Your task to perform on an android device: open device folders in google photos Image 0: 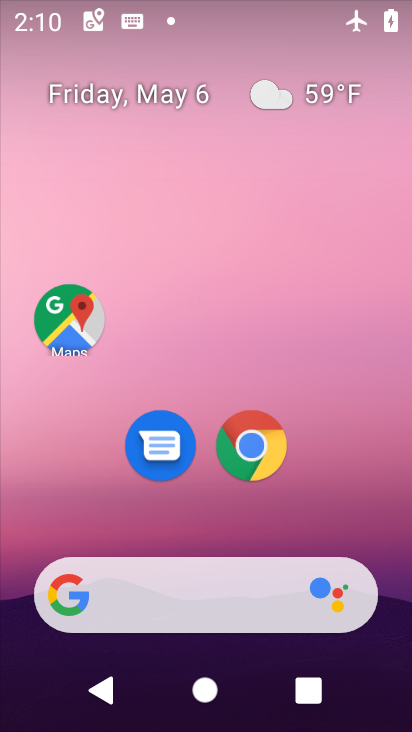
Step 0: drag from (396, 513) to (183, 45)
Your task to perform on an android device: open device folders in google photos Image 1: 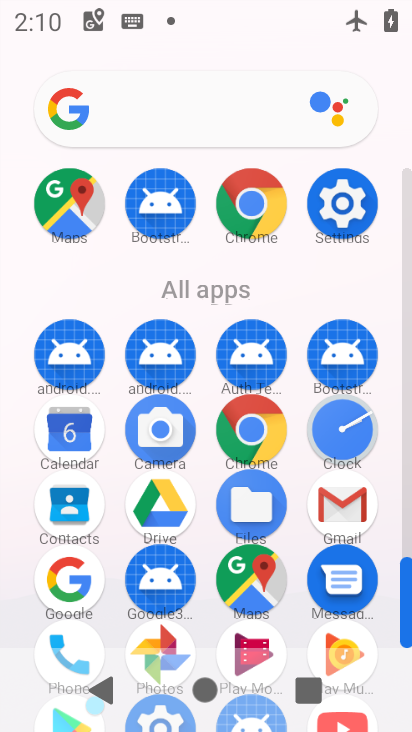
Step 1: click (164, 648)
Your task to perform on an android device: open device folders in google photos Image 2: 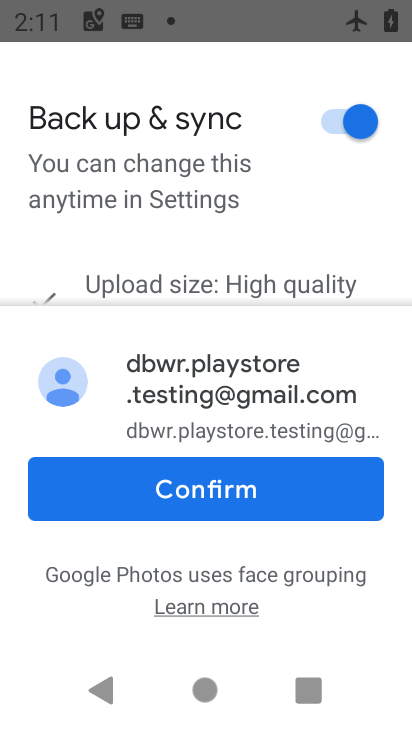
Step 2: click (239, 485)
Your task to perform on an android device: open device folders in google photos Image 3: 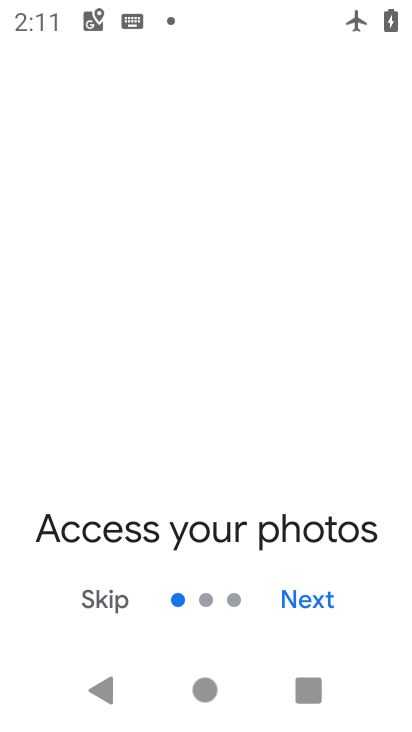
Step 3: press home button
Your task to perform on an android device: open device folders in google photos Image 4: 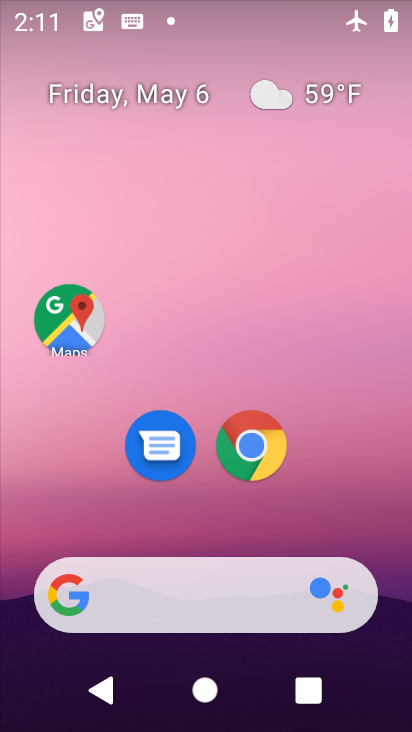
Step 4: drag from (385, 516) to (164, 94)
Your task to perform on an android device: open device folders in google photos Image 5: 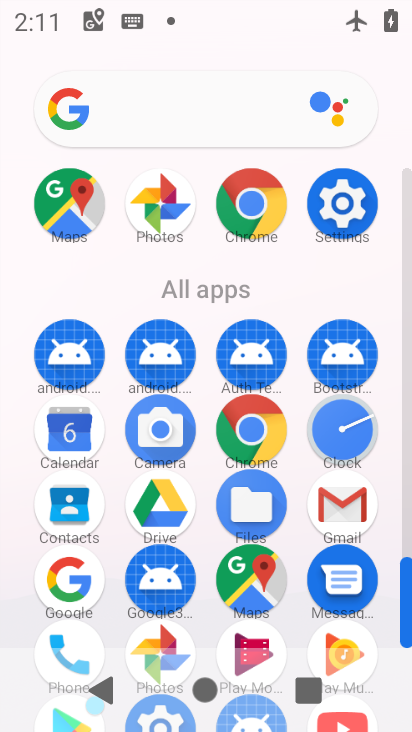
Step 5: click (154, 205)
Your task to perform on an android device: open device folders in google photos Image 6: 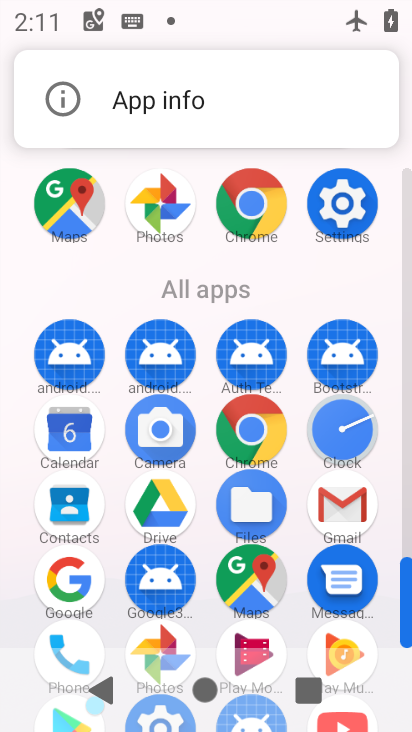
Step 6: click (166, 201)
Your task to perform on an android device: open device folders in google photos Image 7: 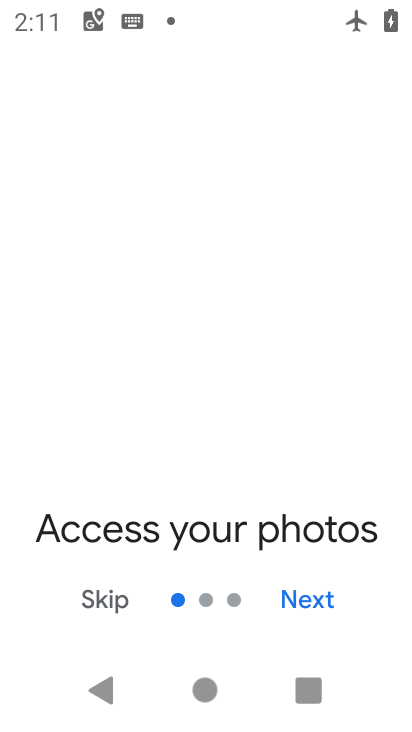
Step 7: click (300, 592)
Your task to perform on an android device: open device folders in google photos Image 8: 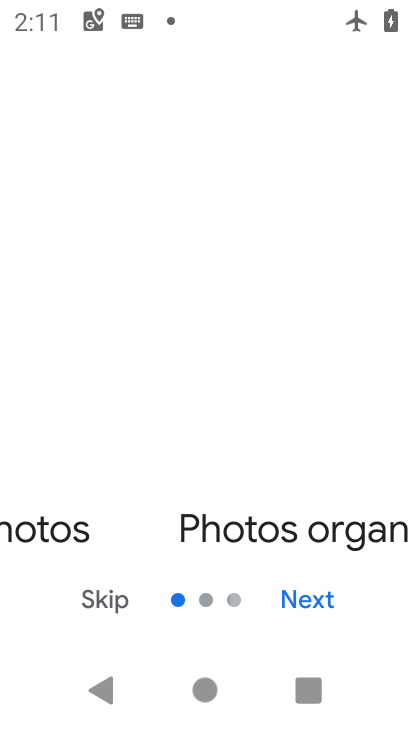
Step 8: click (300, 592)
Your task to perform on an android device: open device folders in google photos Image 9: 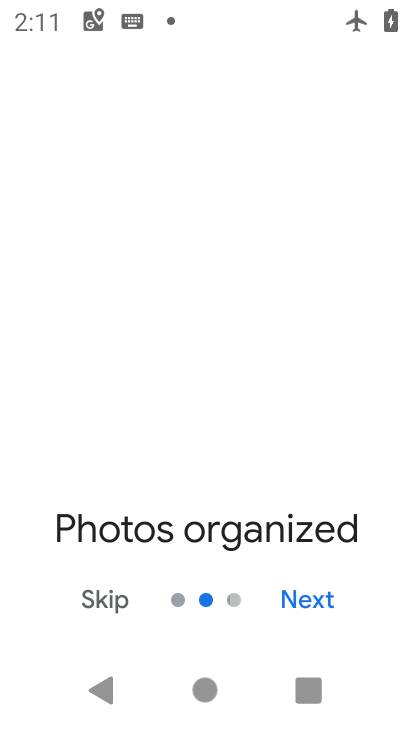
Step 9: click (300, 592)
Your task to perform on an android device: open device folders in google photos Image 10: 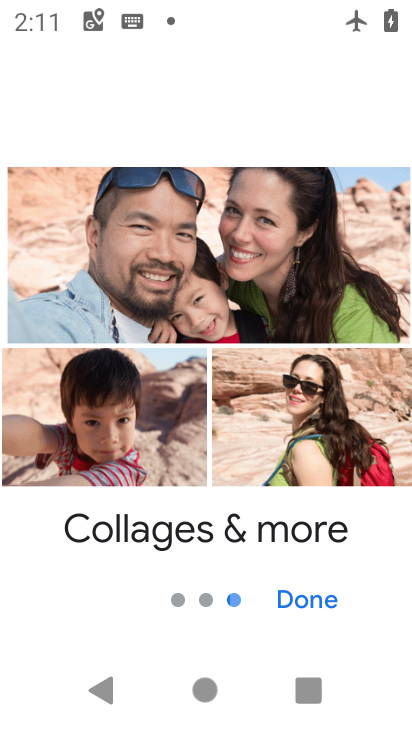
Step 10: click (300, 592)
Your task to perform on an android device: open device folders in google photos Image 11: 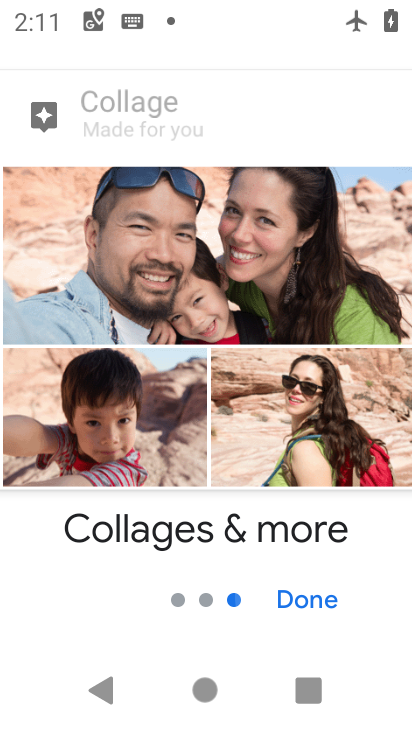
Step 11: click (300, 592)
Your task to perform on an android device: open device folders in google photos Image 12: 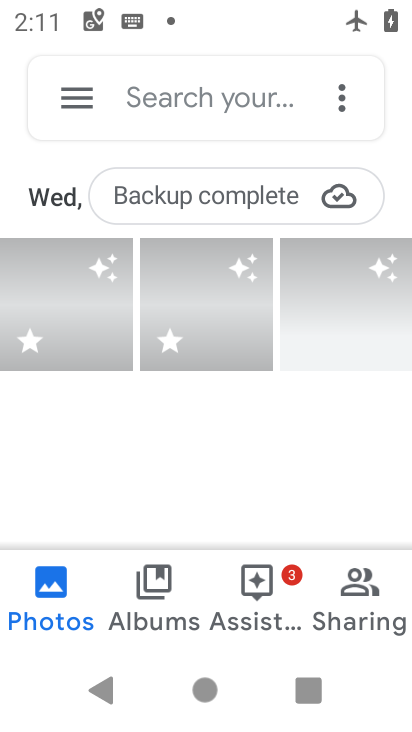
Step 12: drag from (61, 90) to (120, 241)
Your task to perform on an android device: open device folders in google photos Image 13: 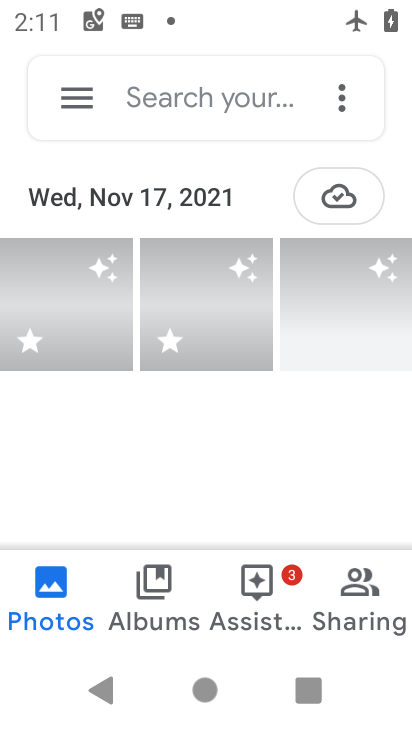
Step 13: click (76, 106)
Your task to perform on an android device: open device folders in google photos Image 14: 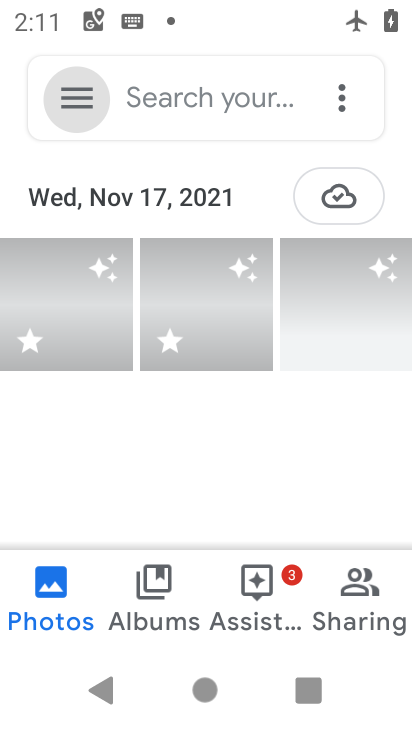
Step 14: click (76, 106)
Your task to perform on an android device: open device folders in google photos Image 15: 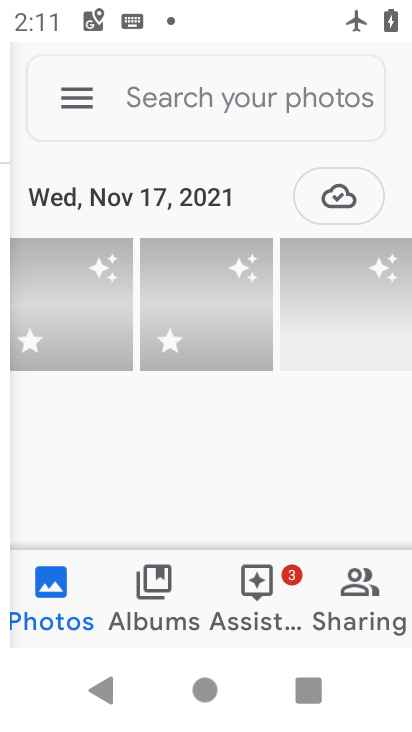
Step 15: click (76, 106)
Your task to perform on an android device: open device folders in google photos Image 16: 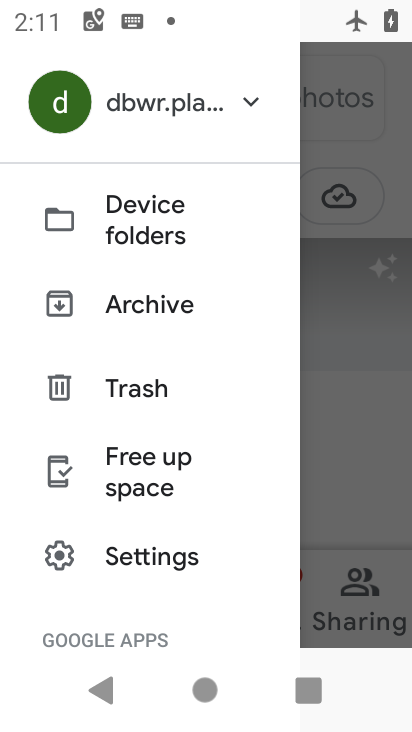
Step 16: click (138, 215)
Your task to perform on an android device: open device folders in google photos Image 17: 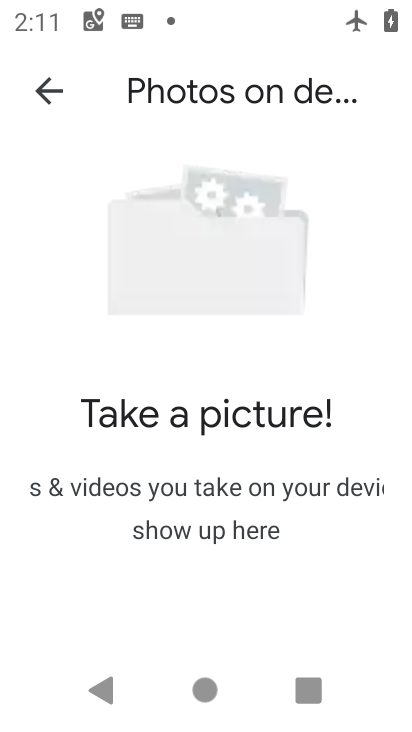
Step 17: task complete